Your task to perform on an android device: turn off wifi Image 0: 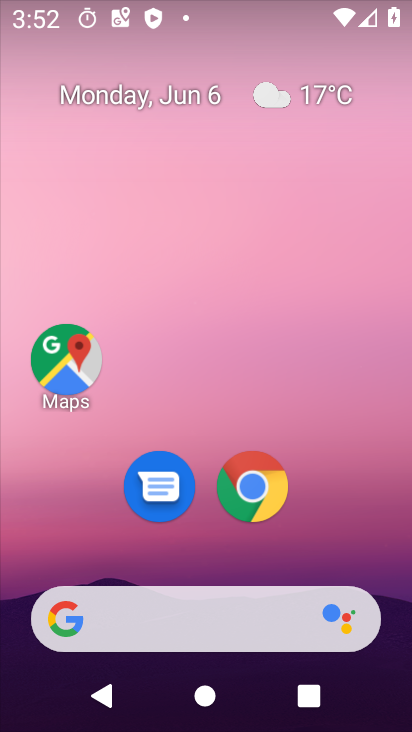
Step 0: drag from (339, 475) to (315, 127)
Your task to perform on an android device: turn off wifi Image 1: 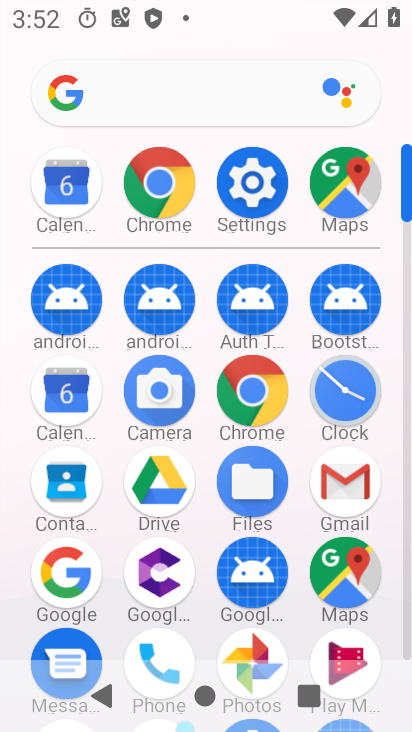
Step 1: click (259, 177)
Your task to perform on an android device: turn off wifi Image 2: 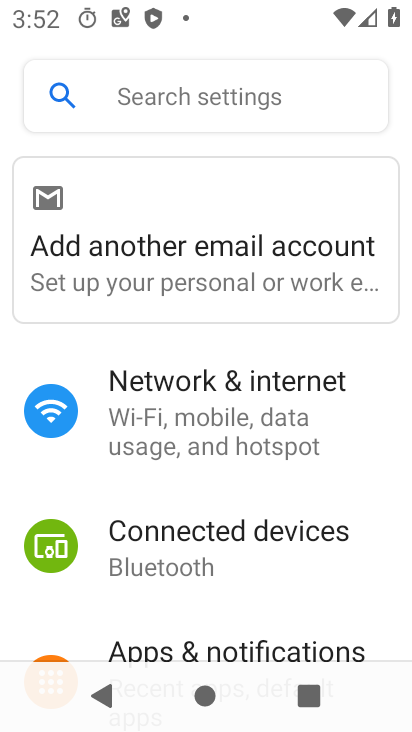
Step 2: click (206, 424)
Your task to perform on an android device: turn off wifi Image 3: 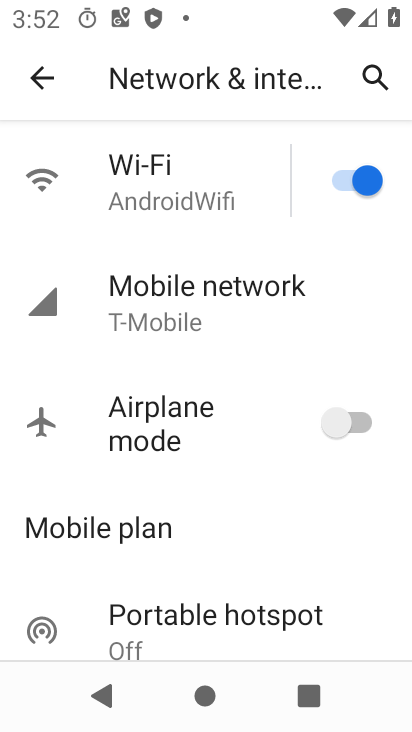
Step 3: click (370, 185)
Your task to perform on an android device: turn off wifi Image 4: 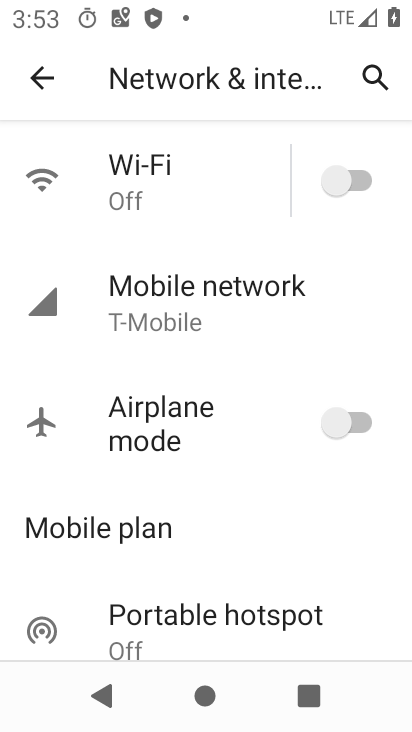
Step 4: task complete